Your task to perform on an android device: What's the weather going to be tomorrow? Image 0: 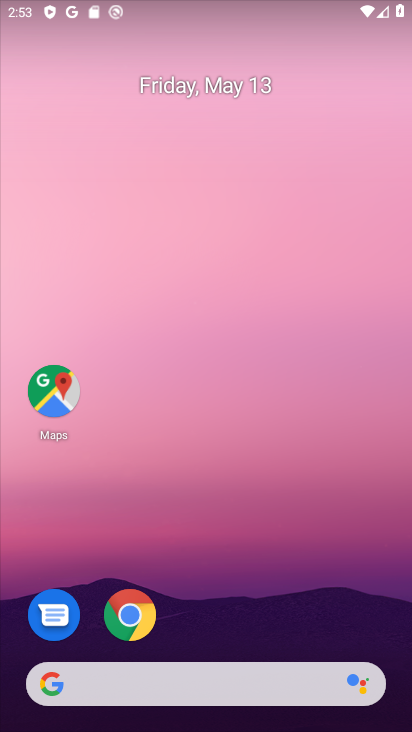
Step 0: click (58, 687)
Your task to perform on an android device: What's the weather going to be tomorrow? Image 1: 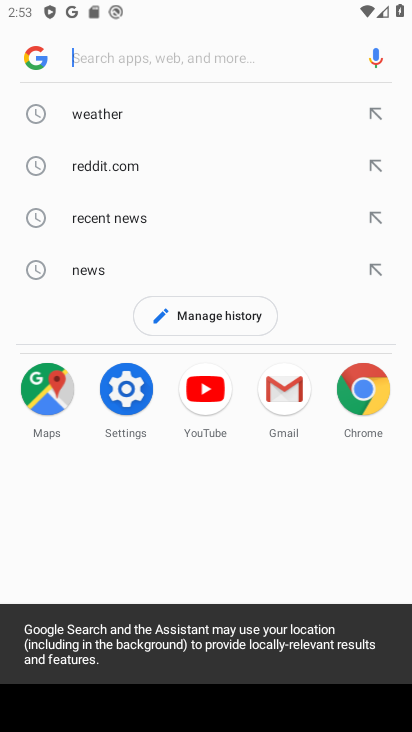
Step 1: click (99, 107)
Your task to perform on an android device: What's the weather going to be tomorrow? Image 2: 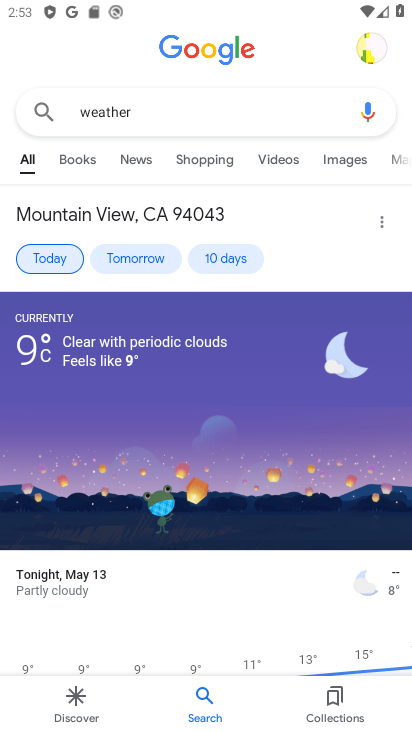
Step 2: click (145, 266)
Your task to perform on an android device: What's the weather going to be tomorrow? Image 3: 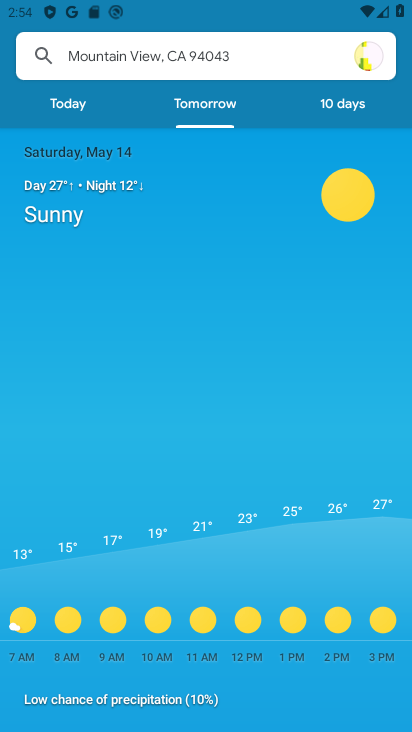
Step 3: task complete